Your task to perform on an android device: refresh tabs in the chrome app Image 0: 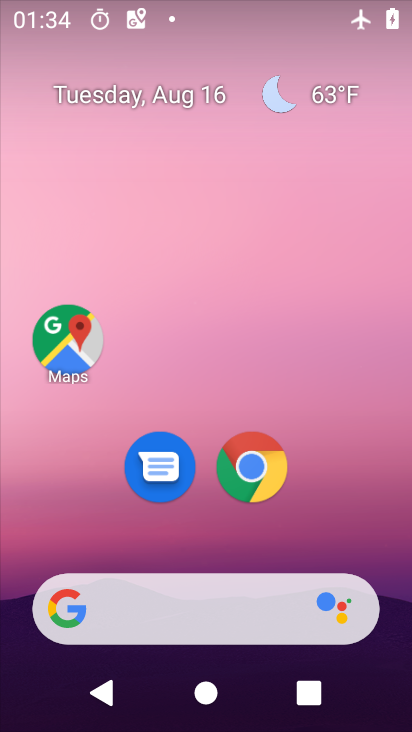
Step 0: press home button
Your task to perform on an android device: refresh tabs in the chrome app Image 1: 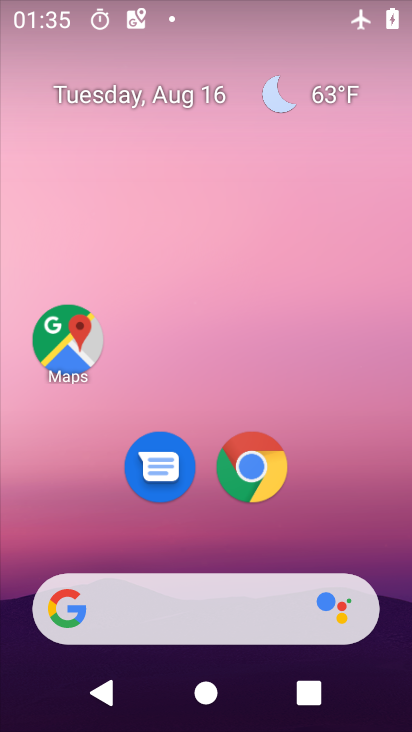
Step 1: drag from (373, 524) to (380, 144)
Your task to perform on an android device: refresh tabs in the chrome app Image 2: 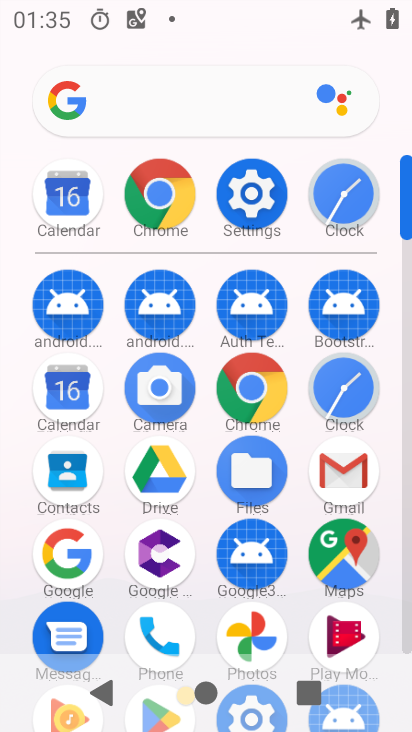
Step 2: click (238, 407)
Your task to perform on an android device: refresh tabs in the chrome app Image 3: 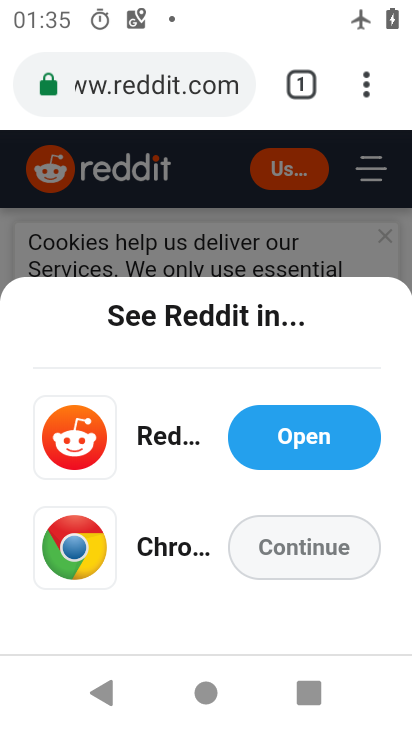
Step 3: click (369, 94)
Your task to perform on an android device: refresh tabs in the chrome app Image 4: 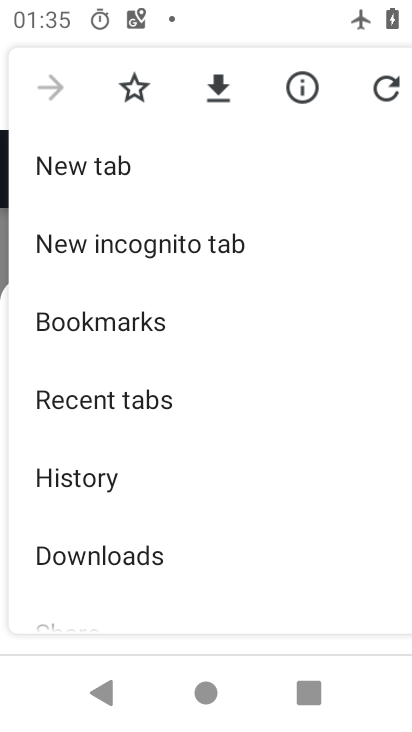
Step 4: click (385, 94)
Your task to perform on an android device: refresh tabs in the chrome app Image 5: 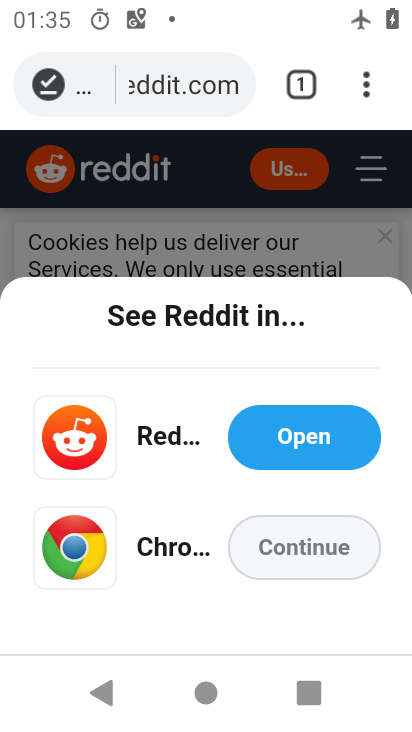
Step 5: task complete